Your task to perform on an android device: Open the phone app and click the voicemail tab. Image 0: 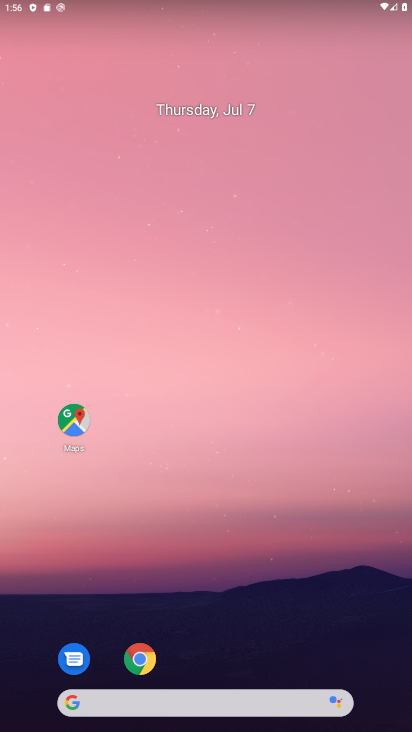
Step 0: drag from (311, 588) to (257, 538)
Your task to perform on an android device: Open the phone app and click the voicemail tab. Image 1: 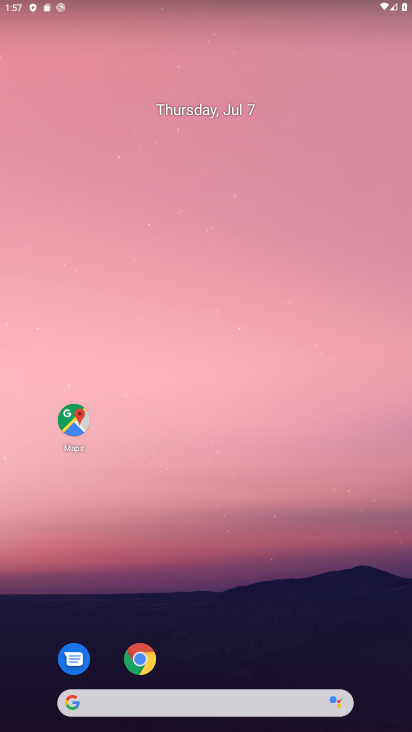
Step 1: drag from (257, 538) to (213, 384)
Your task to perform on an android device: Open the phone app and click the voicemail tab. Image 2: 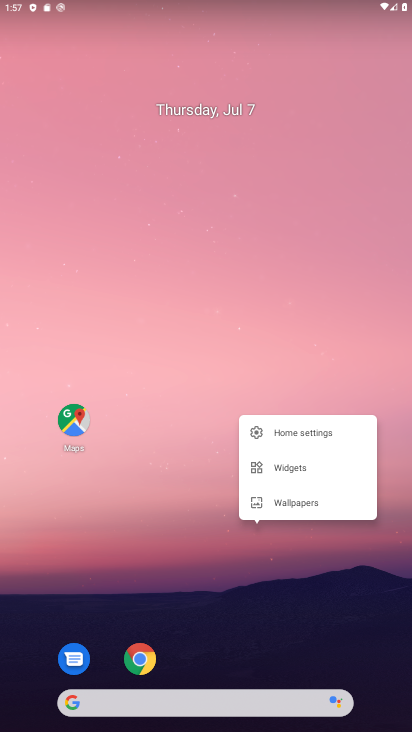
Step 2: drag from (232, 547) to (248, 8)
Your task to perform on an android device: Open the phone app and click the voicemail tab. Image 3: 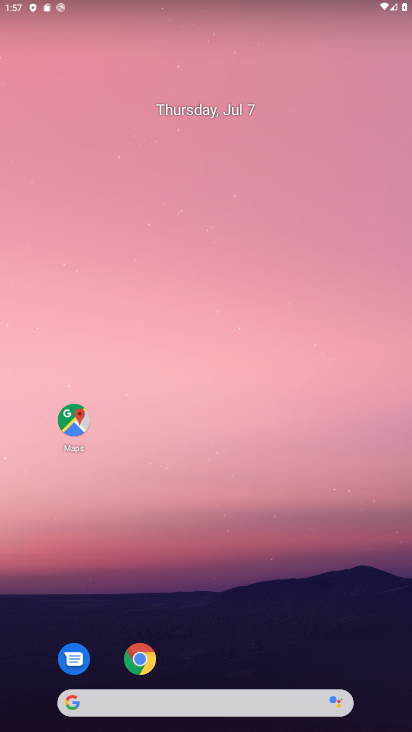
Step 3: drag from (263, 609) to (242, 23)
Your task to perform on an android device: Open the phone app and click the voicemail tab. Image 4: 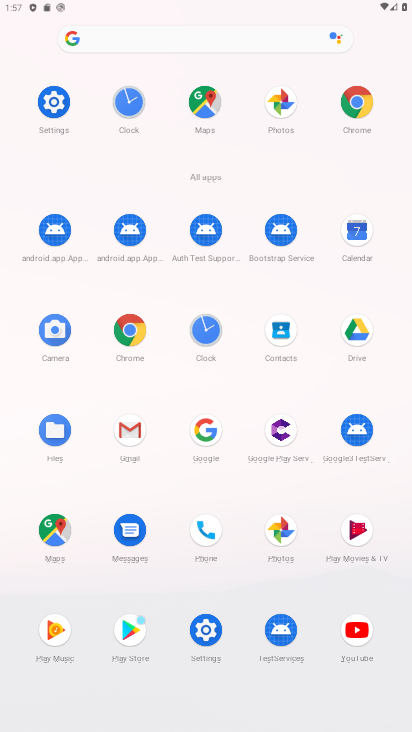
Step 4: click (291, 101)
Your task to perform on an android device: Open the phone app and click the voicemail tab. Image 5: 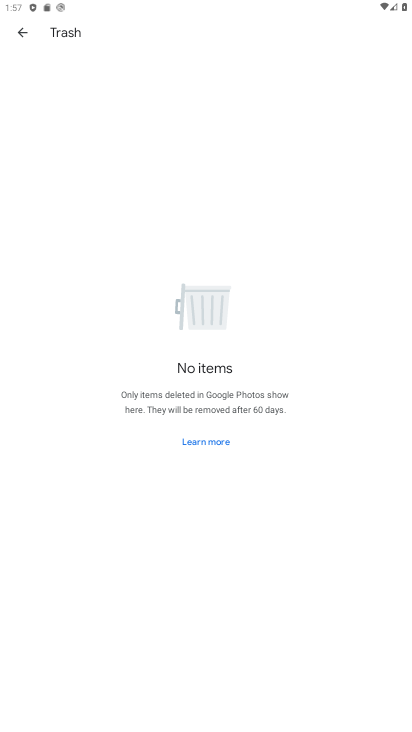
Step 5: press home button
Your task to perform on an android device: Open the phone app and click the voicemail tab. Image 6: 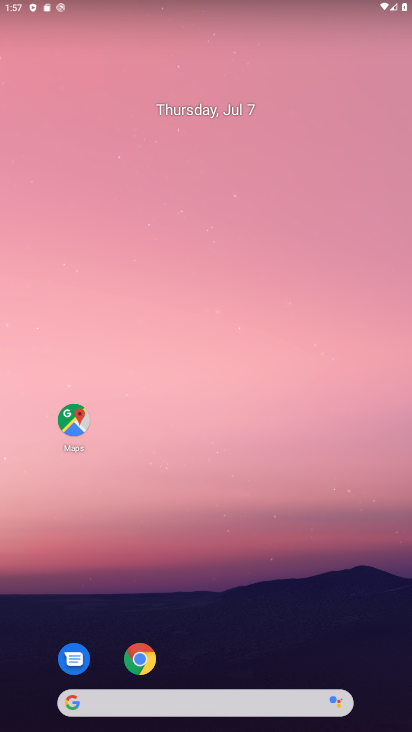
Step 6: drag from (193, 592) to (198, 25)
Your task to perform on an android device: Open the phone app and click the voicemail tab. Image 7: 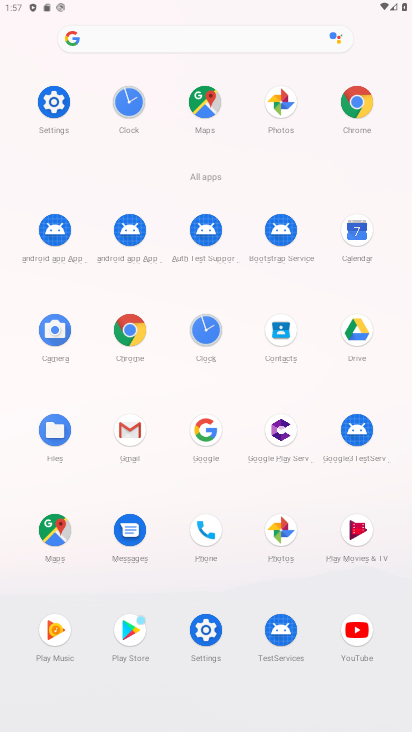
Step 7: click (207, 528)
Your task to perform on an android device: Open the phone app and click the voicemail tab. Image 8: 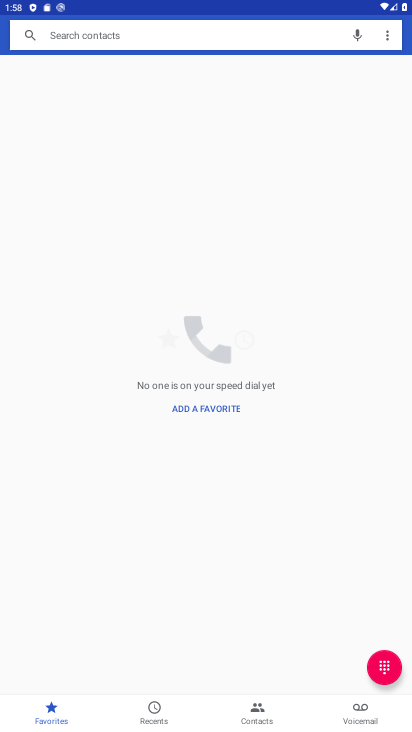
Step 8: click (359, 714)
Your task to perform on an android device: Open the phone app and click the voicemail tab. Image 9: 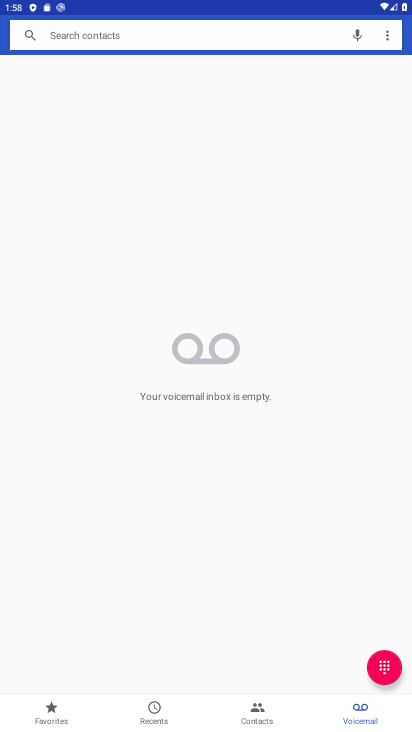
Step 9: task complete